Your task to perform on an android device: Open calendar and show me the second week of next month Image 0: 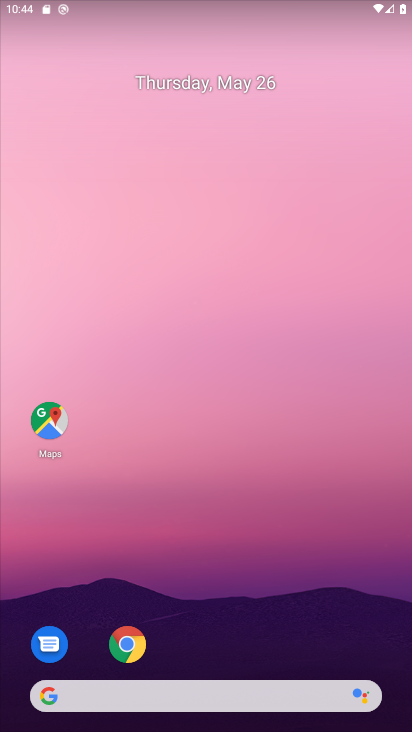
Step 0: drag from (292, 624) to (363, 136)
Your task to perform on an android device: Open calendar and show me the second week of next month Image 1: 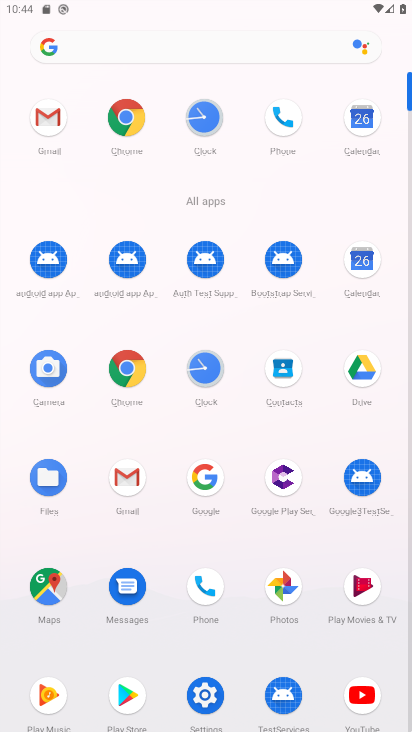
Step 1: click (355, 267)
Your task to perform on an android device: Open calendar and show me the second week of next month Image 2: 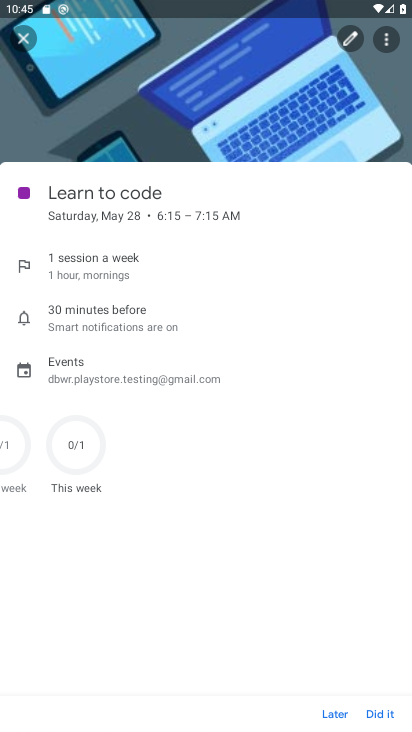
Step 2: click (27, 40)
Your task to perform on an android device: Open calendar and show me the second week of next month Image 3: 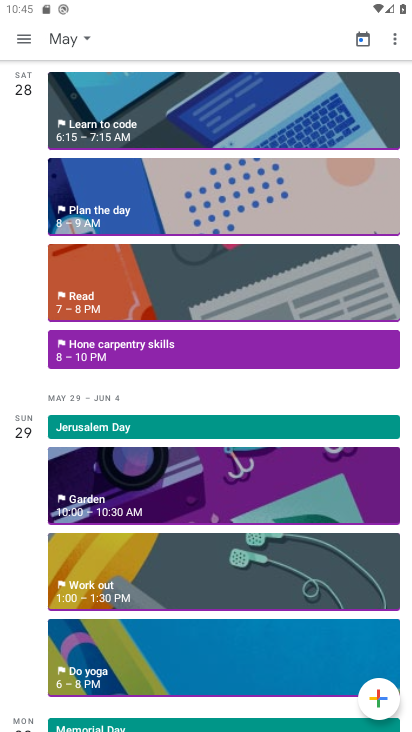
Step 3: click (87, 39)
Your task to perform on an android device: Open calendar and show me the second week of next month Image 4: 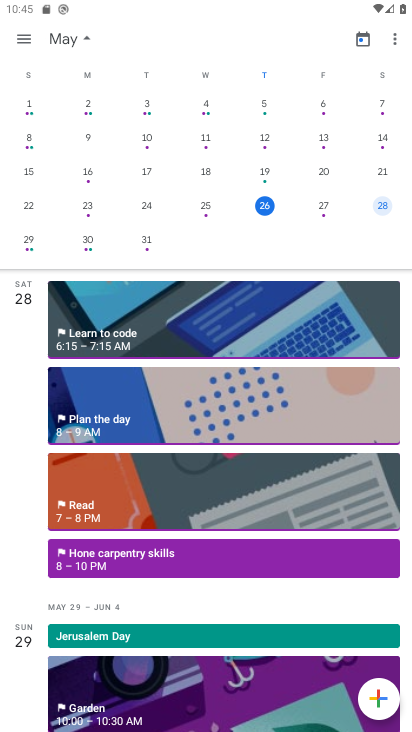
Step 4: drag from (362, 90) to (9, 101)
Your task to perform on an android device: Open calendar and show me the second week of next month Image 5: 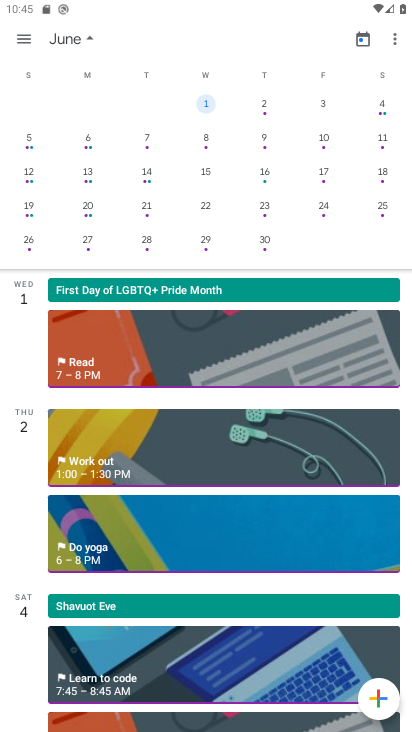
Step 5: click (141, 142)
Your task to perform on an android device: Open calendar and show me the second week of next month Image 6: 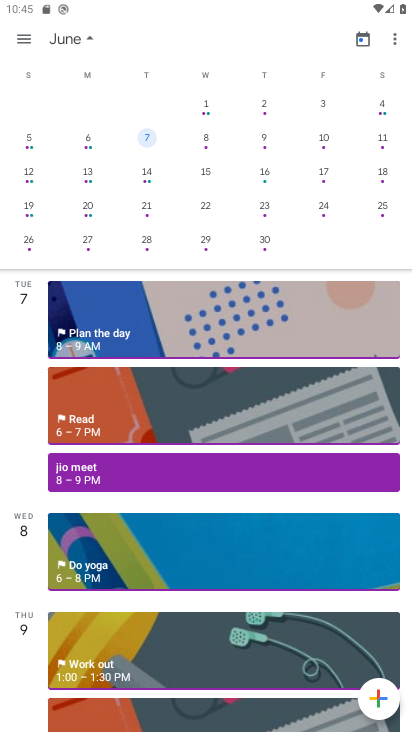
Step 6: task complete